Your task to perform on an android device: Go to Reddit.com Image 0: 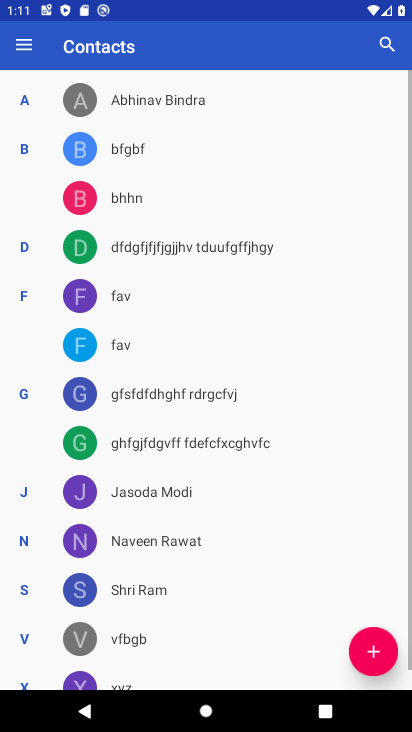
Step 0: press home button
Your task to perform on an android device: Go to Reddit.com Image 1: 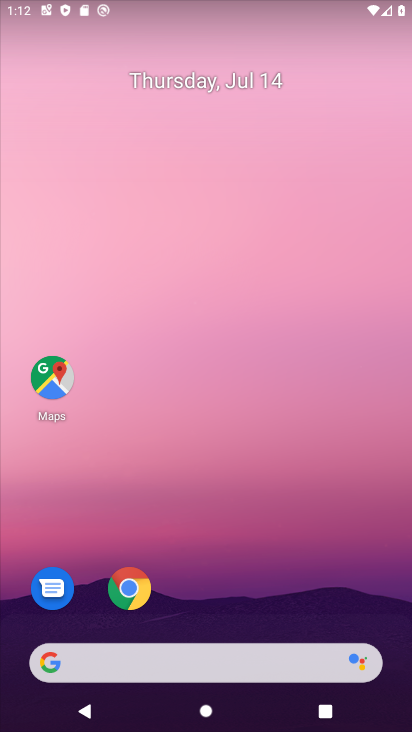
Step 1: drag from (231, 522) to (191, 549)
Your task to perform on an android device: Go to Reddit.com Image 2: 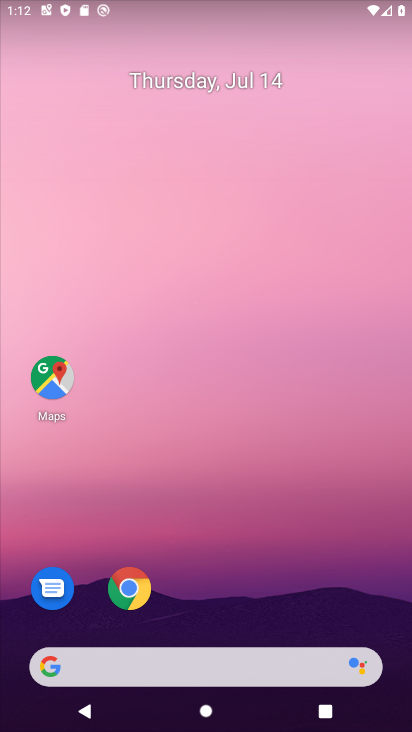
Step 2: click (112, 560)
Your task to perform on an android device: Go to Reddit.com Image 3: 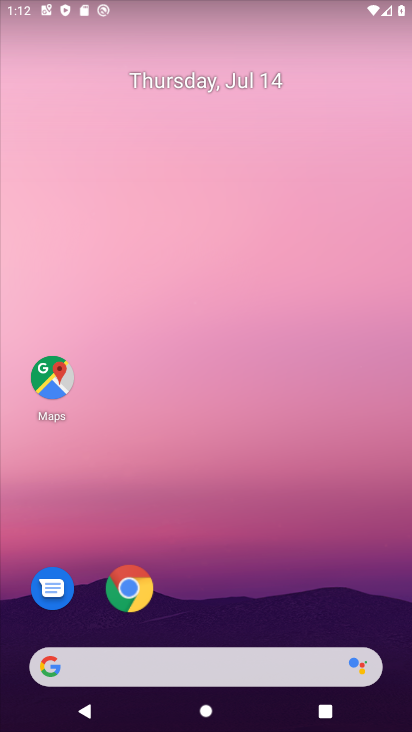
Step 3: click (132, 599)
Your task to perform on an android device: Go to Reddit.com Image 4: 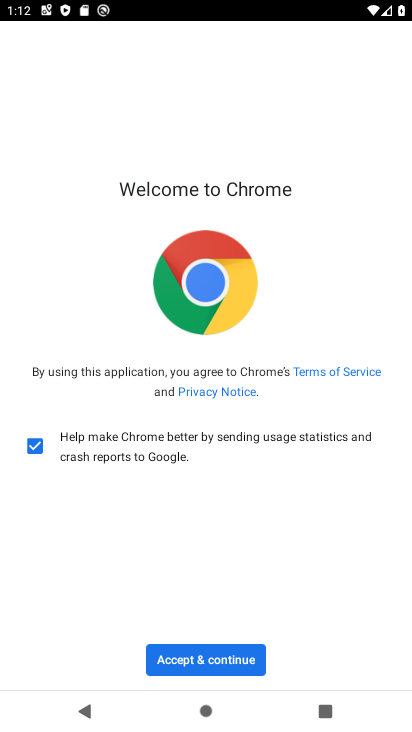
Step 4: click (199, 656)
Your task to perform on an android device: Go to Reddit.com Image 5: 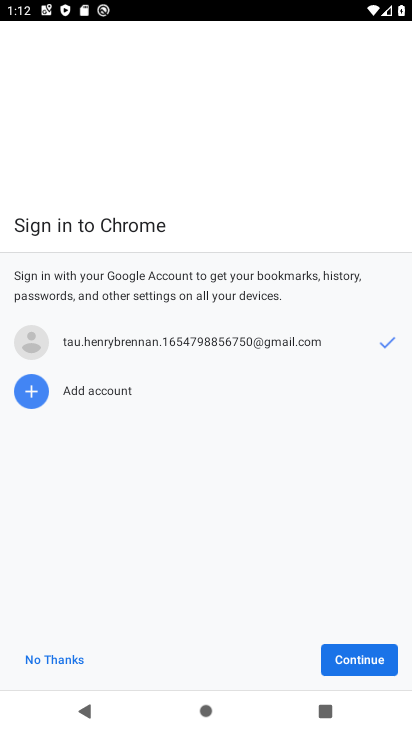
Step 5: click (340, 655)
Your task to perform on an android device: Go to Reddit.com Image 6: 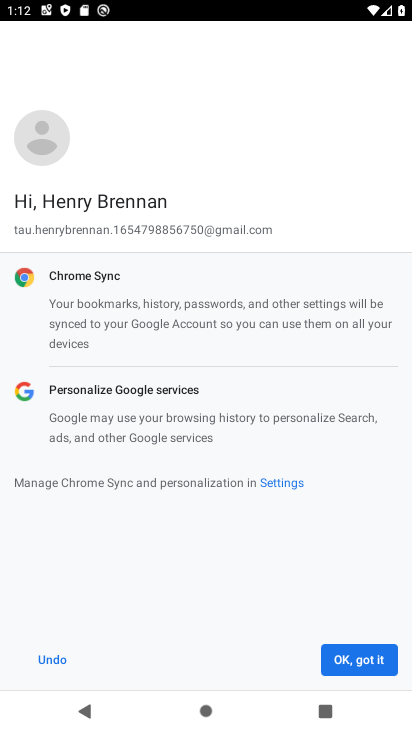
Step 6: click (350, 662)
Your task to perform on an android device: Go to Reddit.com Image 7: 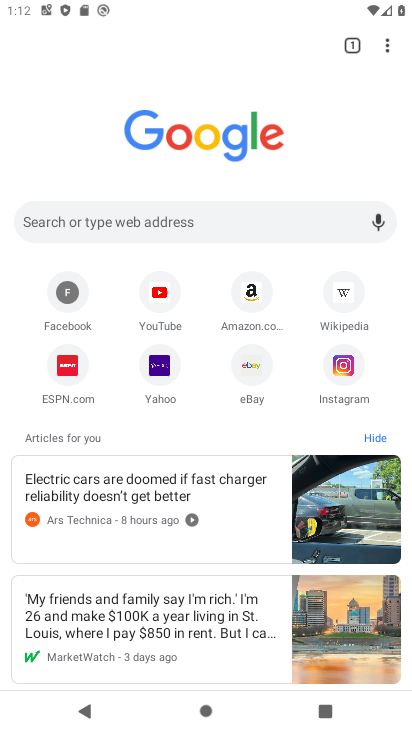
Step 7: click (153, 232)
Your task to perform on an android device: Go to Reddit.com Image 8: 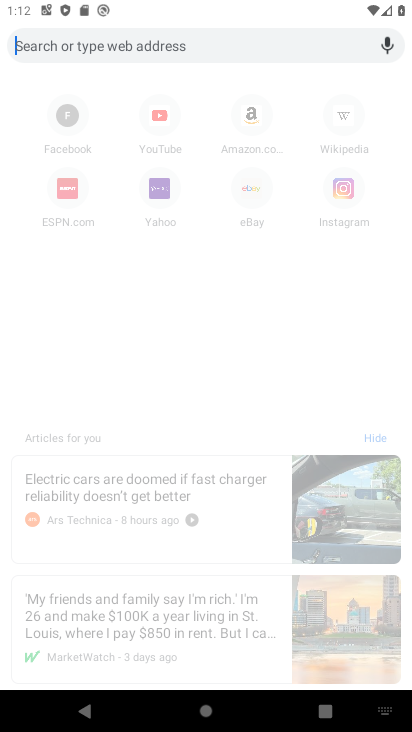
Step 8: type "reddit"
Your task to perform on an android device: Go to Reddit.com Image 9: 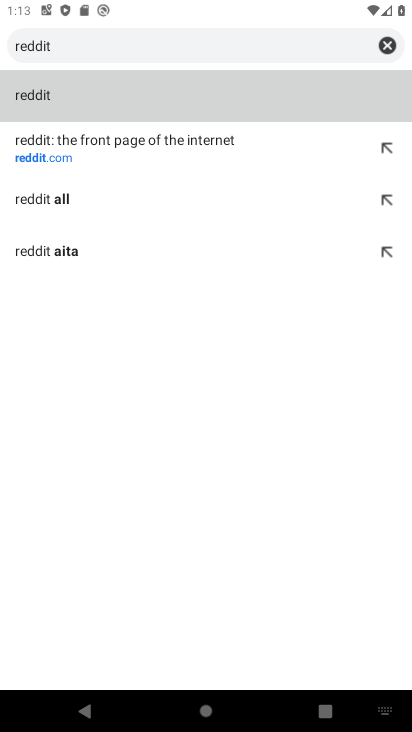
Step 9: click (126, 150)
Your task to perform on an android device: Go to Reddit.com Image 10: 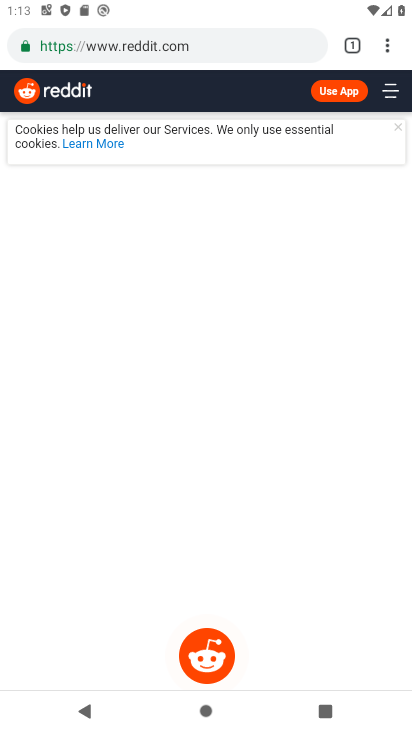
Step 10: task complete